Your task to perform on an android device: turn off wifi Image 0: 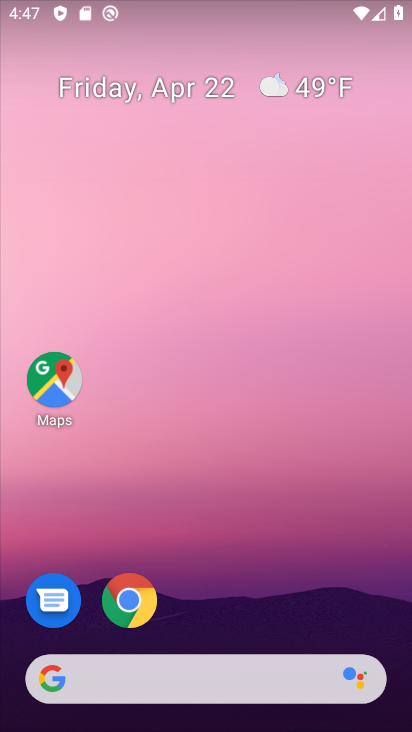
Step 0: drag from (240, 574) to (267, 139)
Your task to perform on an android device: turn off wifi Image 1: 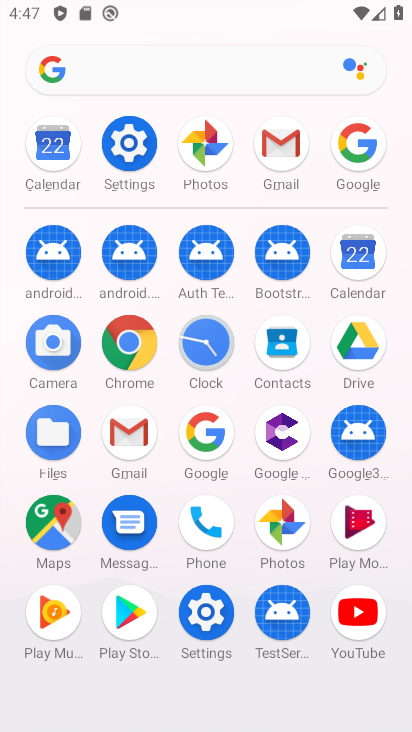
Step 1: click (126, 144)
Your task to perform on an android device: turn off wifi Image 2: 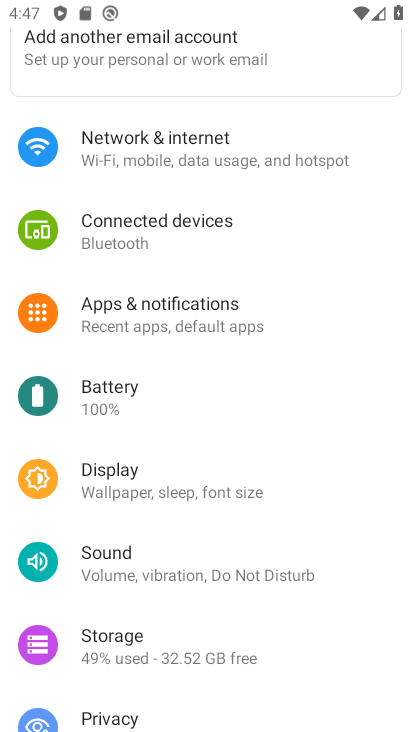
Step 2: click (164, 152)
Your task to perform on an android device: turn off wifi Image 3: 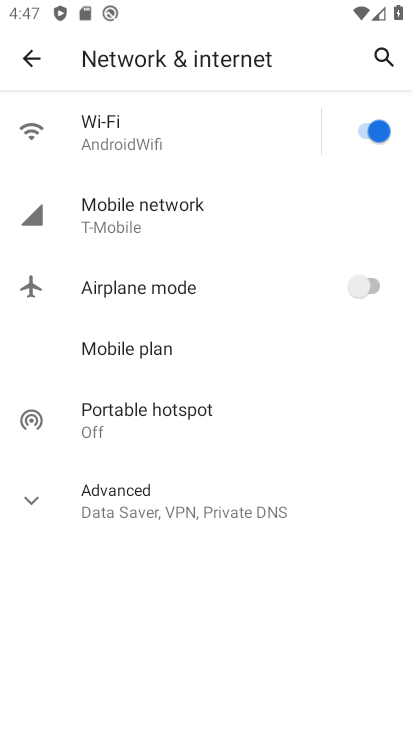
Step 3: click (381, 141)
Your task to perform on an android device: turn off wifi Image 4: 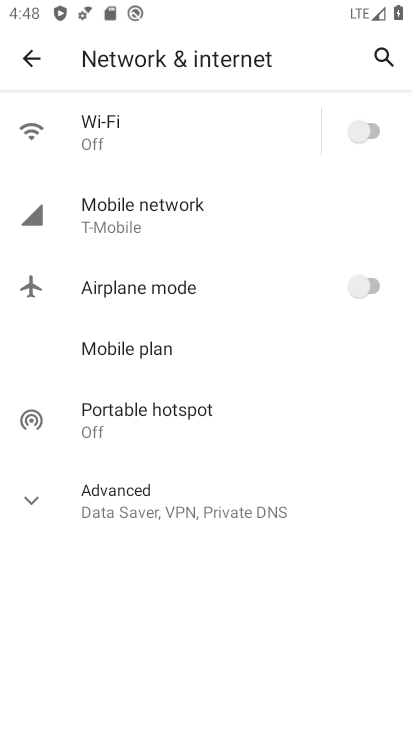
Step 4: task complete